Your task to perform on an android device: find snoozed emails in the gmail app Image 0: 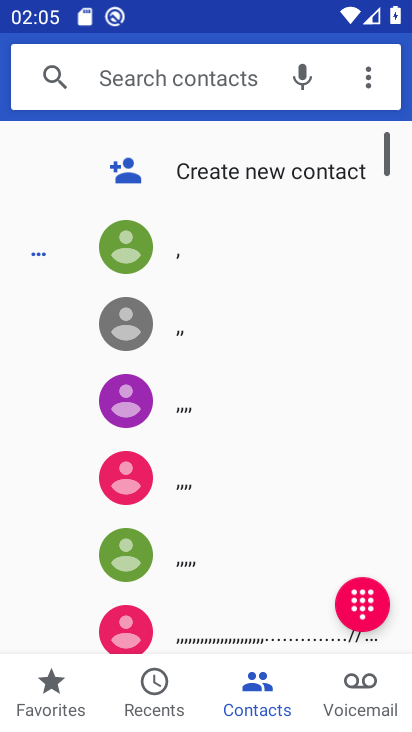
Step 0: press home button
Your task to perform on an android device: find snoozed emails in the gmail app Image 1: 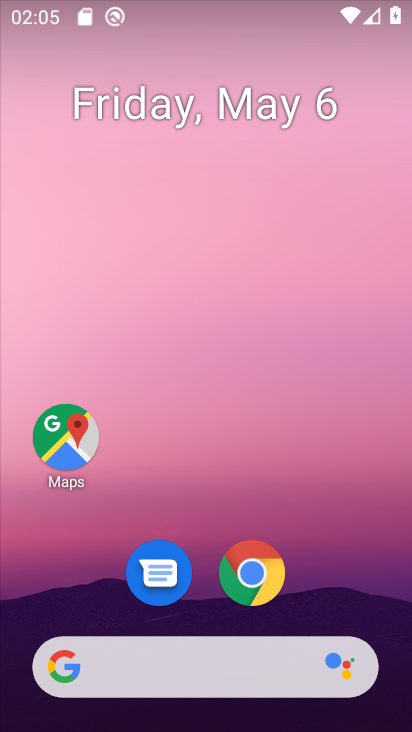
Step 1: drag from (344, 536) to (331, 199)
Your task to perform on an android device: find snoozed emails in the gmail app Image 2: 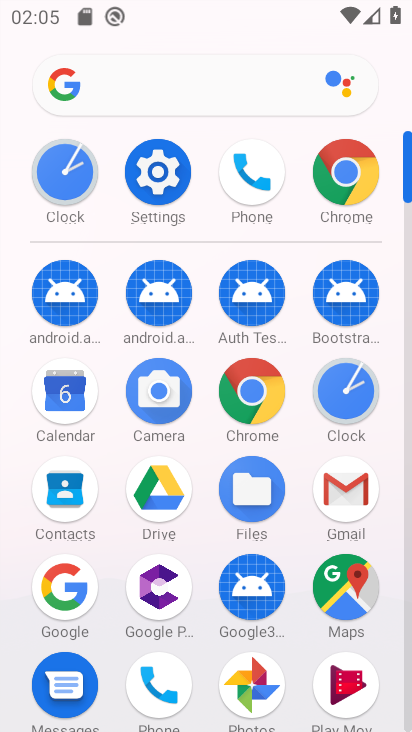
Step 2: click (358, 486)
Your task to perform on an android device: find snoozed emails in the gmail app Image 3: 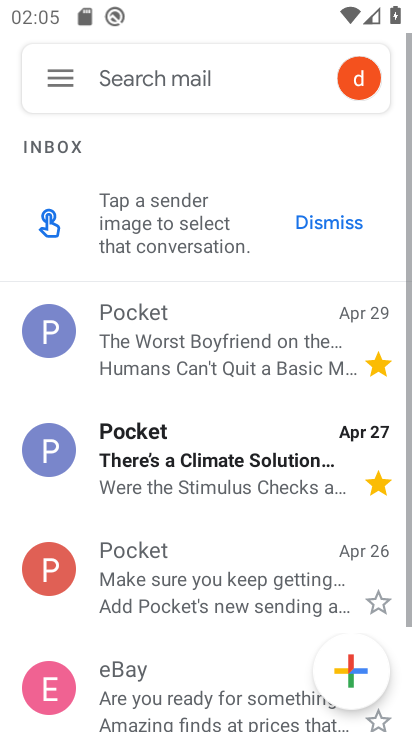
Step 3: click (58, 85)
Your task to perform on an android device: find snoozed emails in the gmail app Image 4: 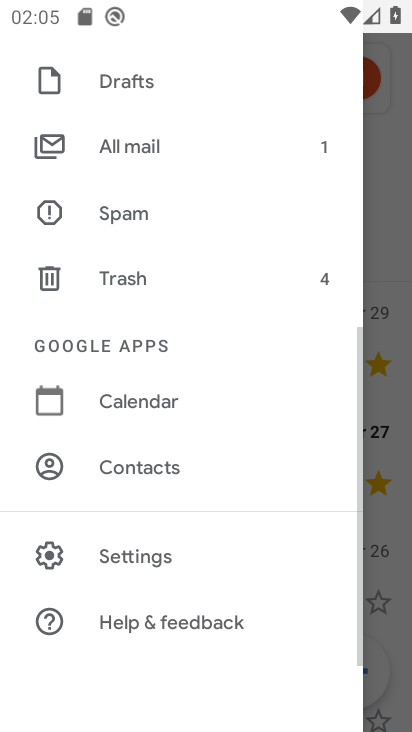
Step 4: drag from (183, 144) to (175, 684)
Your task to perform on an android device: find snoozed emails in the gmail app Image 5: 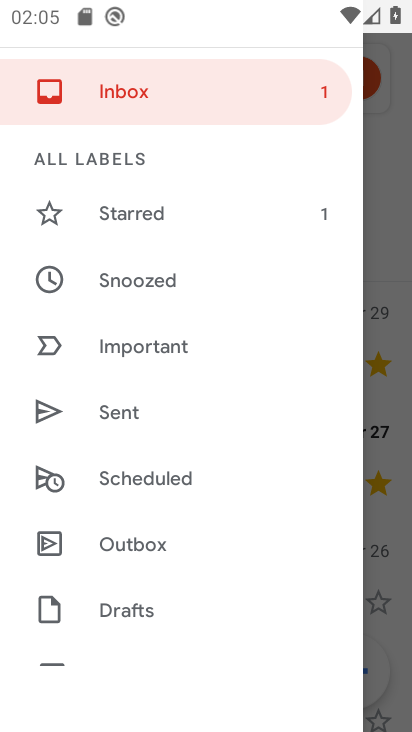
Step 5: click (170, 275)
Your task to perform on an android device: find snoozed emails in the gmail app Image 6: 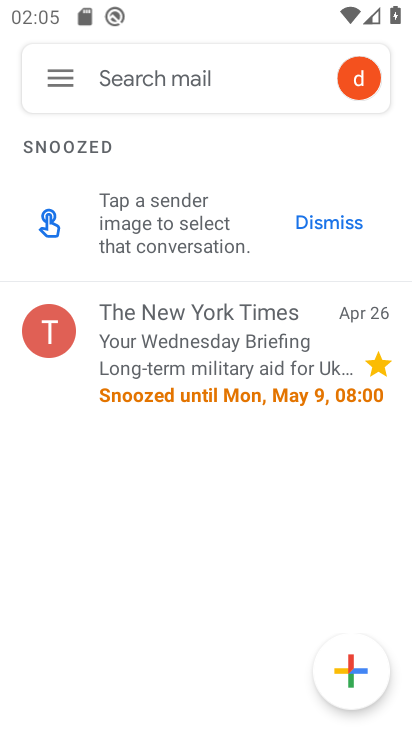
Step 6: task complete